Your task to perform on an android device: See recent photos Image 0: 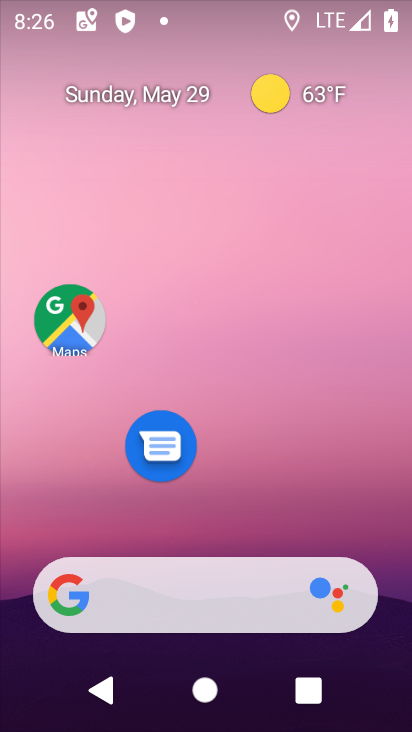
Step 0: drag from (214, 530) to (215, 225)
Your task to perform on an android device: See recent photos Image 1: 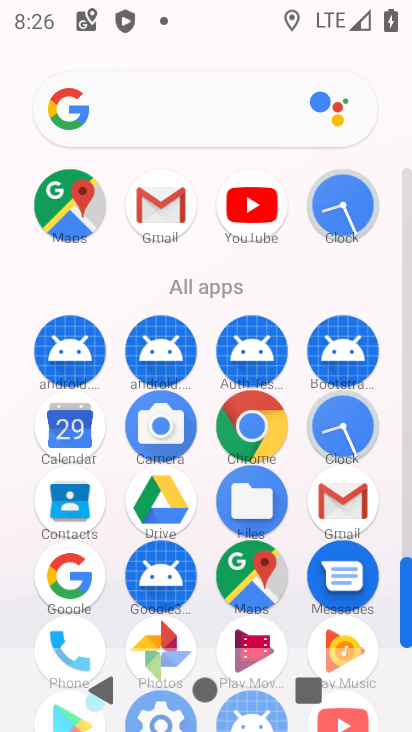
Step 1: drag from (124, 578) to (151, 294)
Your task to perform on an android device: See recent photos Image 2: 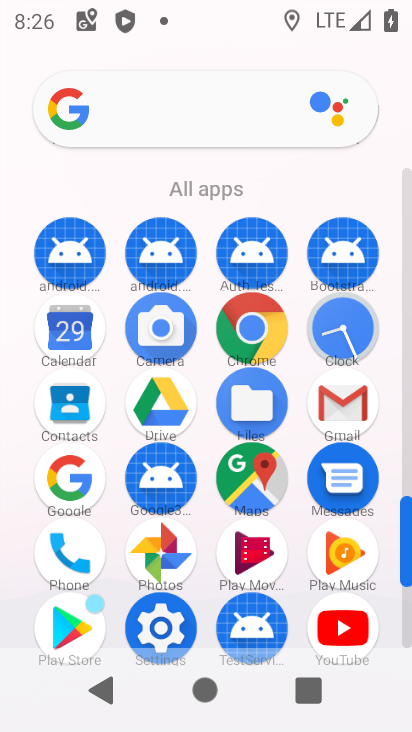
Step 2: click (170, 529)
Your task to perform on an android device: See recent photos Image 3: 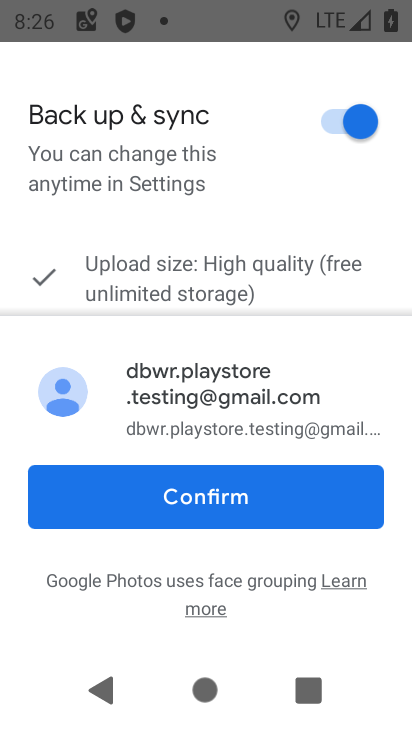
Step 3: click (187, 487)
Your task to perform on an android device: See recent photos Image 4: 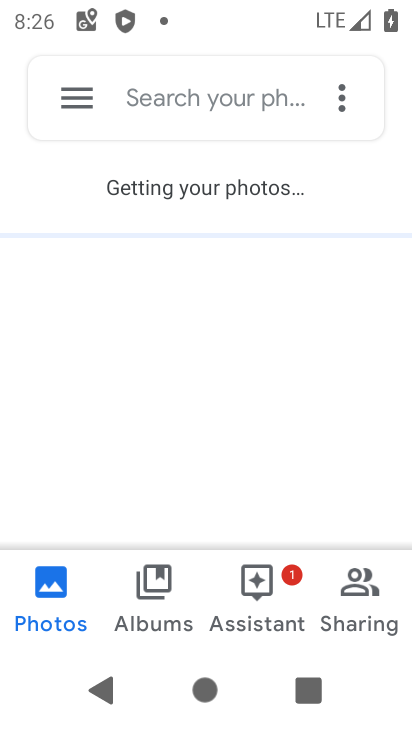
Step 4: task complete